Your task to perform on an android device: Open Wikipedia Image 0: 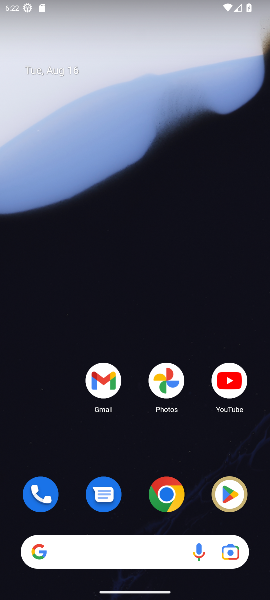
Step 0: click (130, 554)
Your task to perform on an android device: Open Wikipedia Image 1: 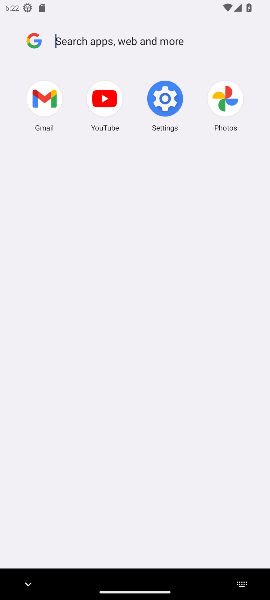
Step 1: type " Wikipedia"
Your task to perform on an android device: Open Wikipedia Image 2: 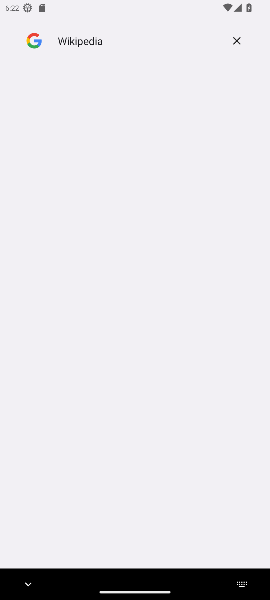
Step 2: press enter
Your task to perform on an android device: Open Wikipedia Image 3: 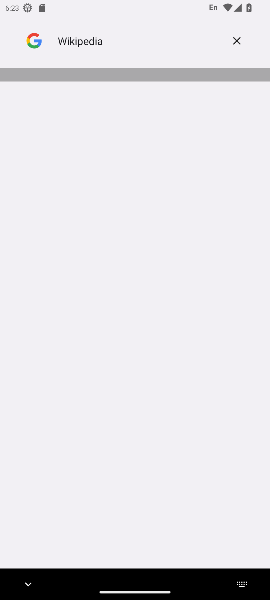
Step 3: task complete